Your task to perform on an android device: star an email in the gmail app Image 0: 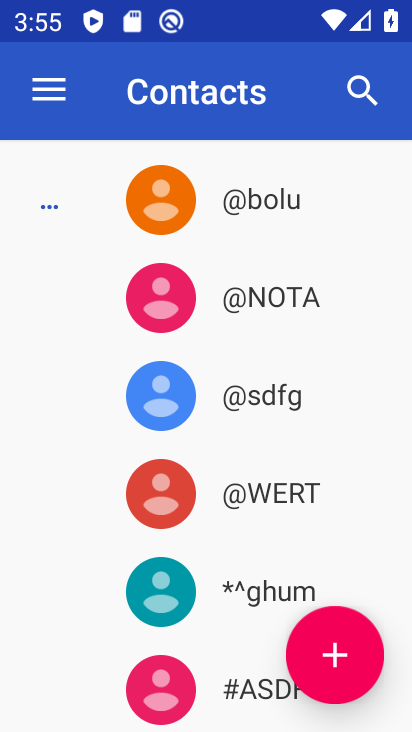
Step 0: press home button
Your task to perform on an android device: star an email in the gmail app Image 1: 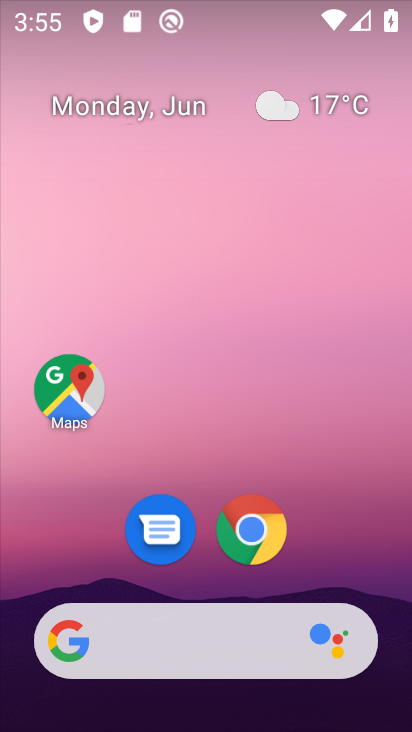
Step 1: drag from (342, 543) to (262, 15)
Your task to perform on an android device: star an email in the gmail app Image 2: 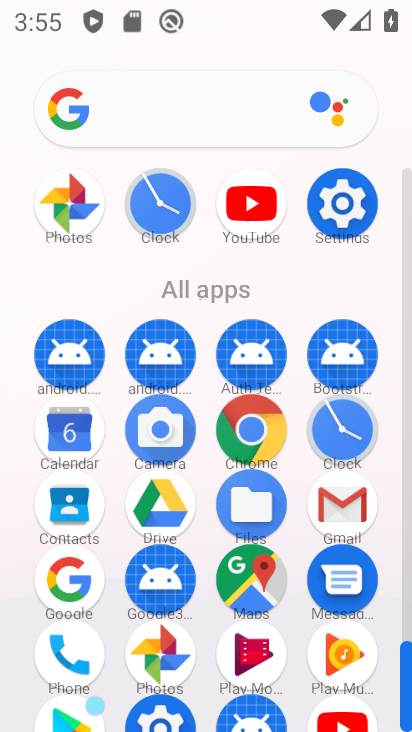
Step 2: click (345, 503)
Your task to perform on an android device: star an email in the gmail app Image 3: 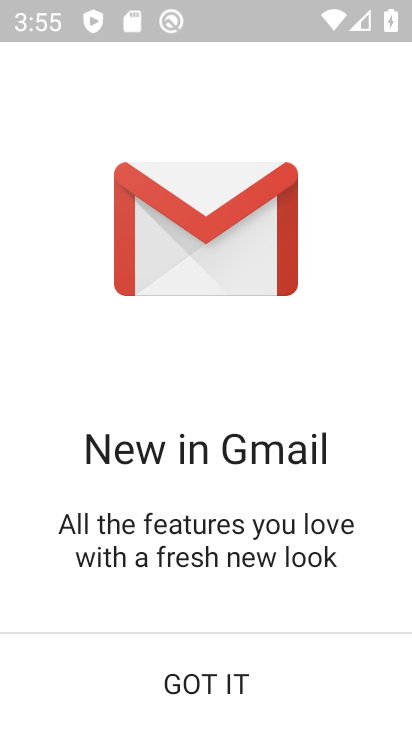
Step 3: click (205, 671)
Your task to perform on an android device: star an email in the gmail app Image 4: 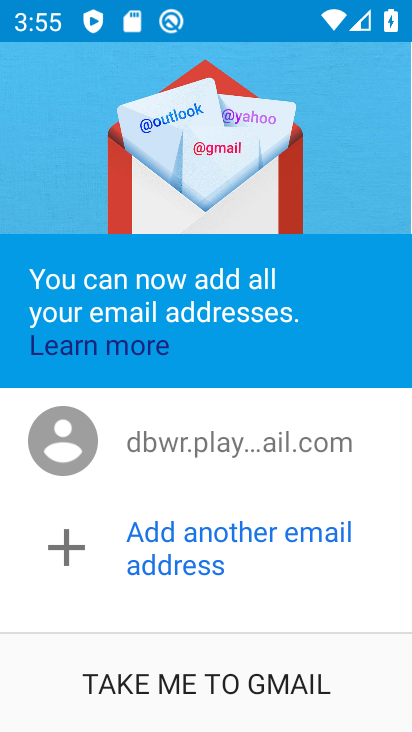
Step 4: click (205, 671)
Your task to perform on an android device: star an email in the gmail app Image 5: 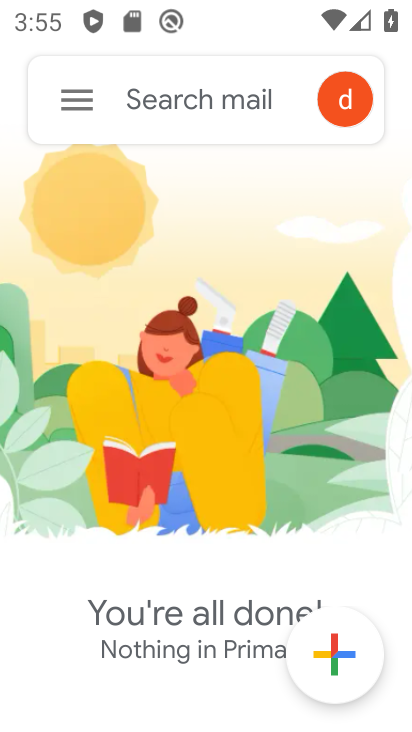
Step 5: click (71, 105)
Your task to perform on an android device: star an email in the gmail app Image 6: 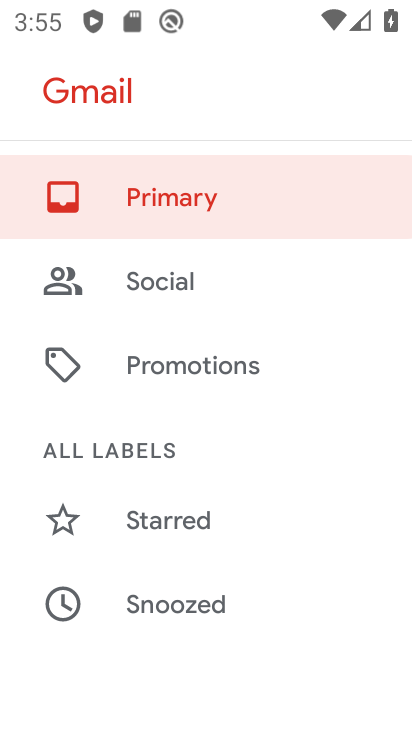
Step 6: drag from (193, 533) to (239, 312)
Your task to perform on an android device: star an email in the gmail app Image 7: 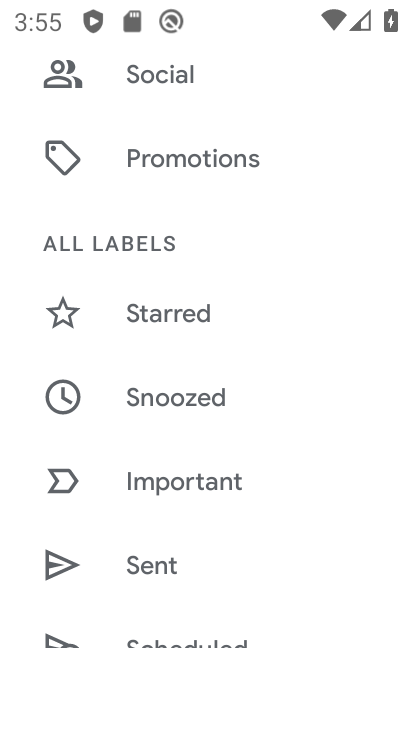
Step 7: drag from (207, 608) to (258, 334)
Your task to perform on an android device: star an email in the gmail app Image 8: 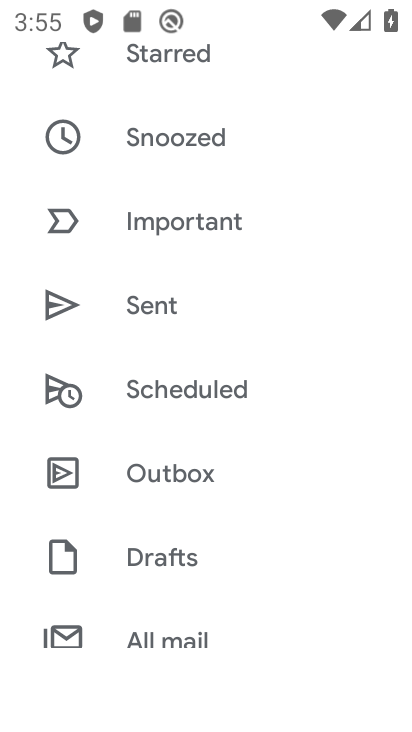
Step 8: drag from (185, 553) to (240, 441)
Your task to perform on an android device: star an email in the gmail app Image 9: 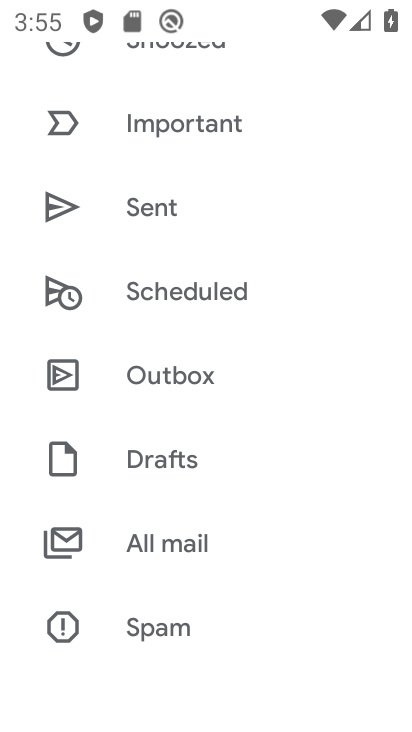
Step 9: click (191, 555)
Your task to perform on an android device: star an email in the gmail app Image 10: 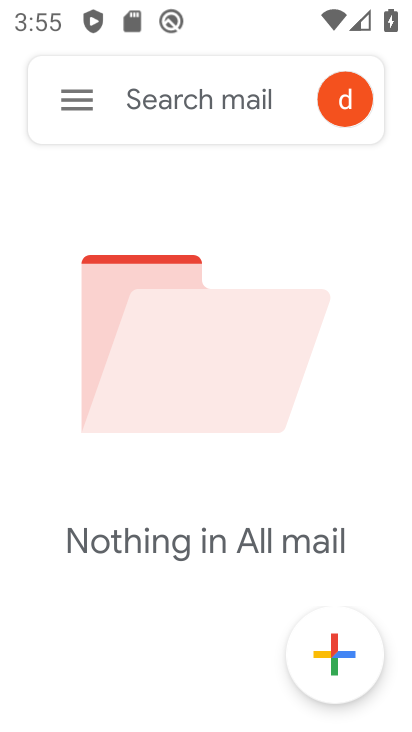
Step 10: click (83, 107)
Your task to perform on an android device: star an email in the gmail app Image 11: 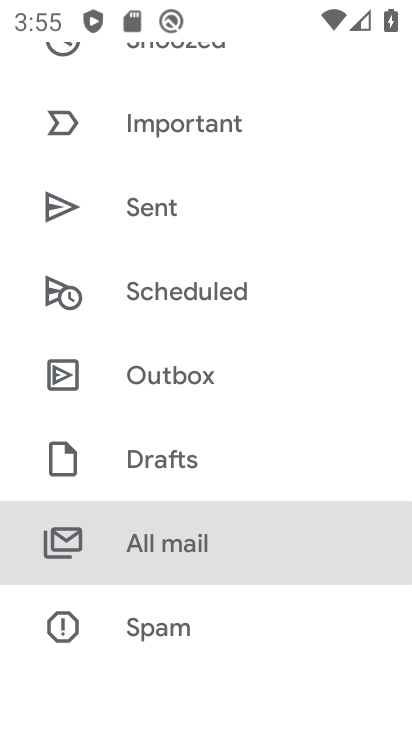
Step 11: task complete